Your task to perform on an android device: turn off location history Image 0: 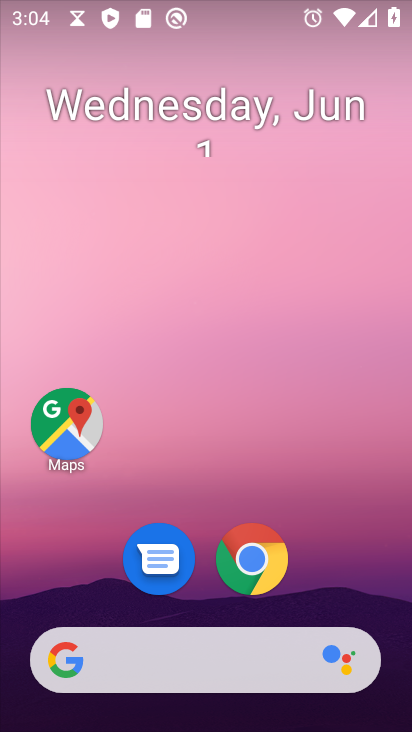
Step 0: drag from (364, 555) to (295, 30)
Your task to perform on an android device: turn off location history Image 1: 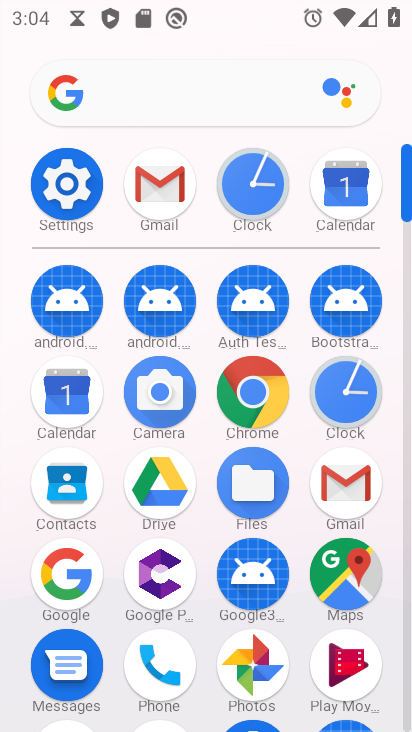
Step 1: click (70, 188)
Your task to perform on an android device: turn off location history Image 2: 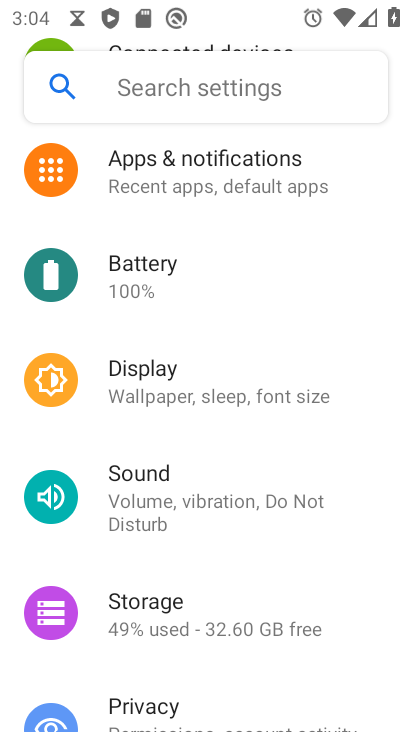
Step 2: drag from (194, 576) to (186, 173)
Your task to perform on an android device: turn off location history Image 3: 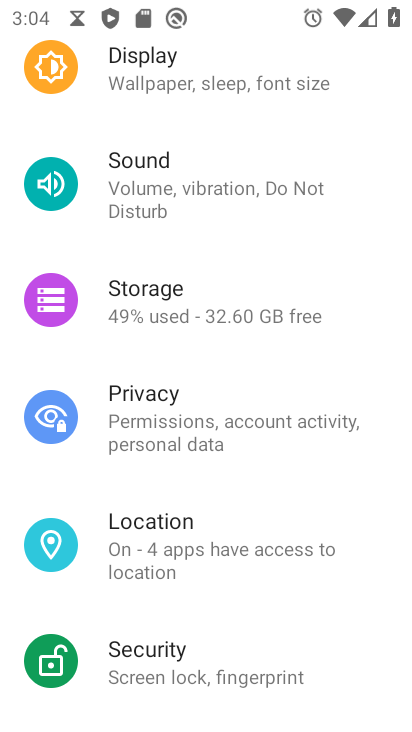
Step 3: click (160, 533)
Your task to perform on an android device: turn off location history Image 4: 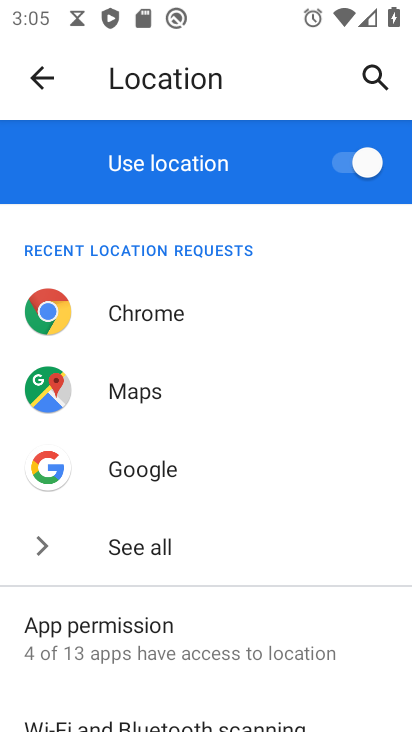
Step 4: drag from (207, 666) to (202, 205)
Your task to perform on an android device: turn off location history Image 5: 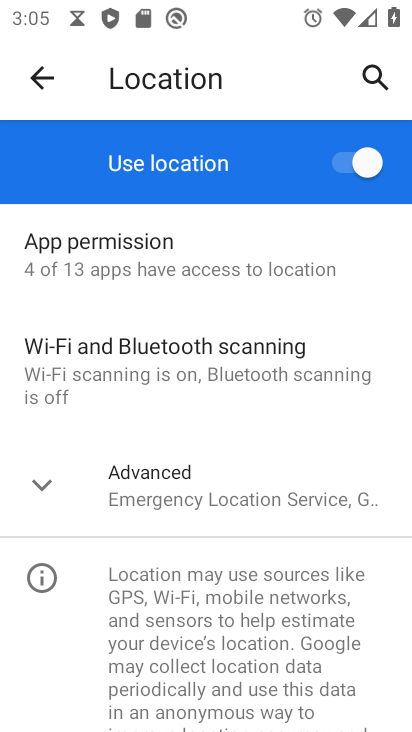
Step 5: click (184, 502)
Your task to perform on an android device: turn off location history Image 6: 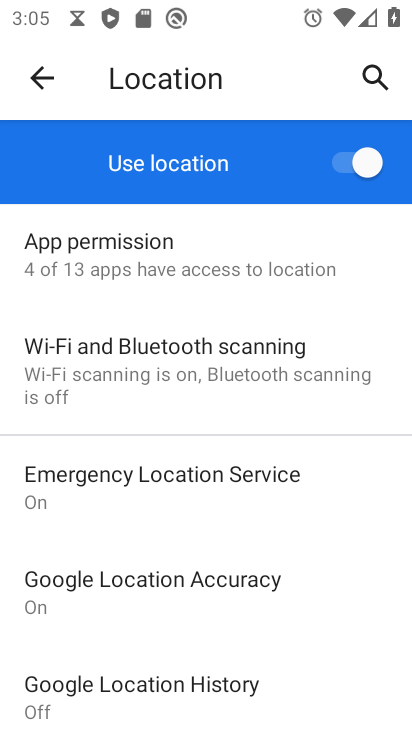
Step 6: click (212, 672)
Your task to perform on an android device: turn off location history Image 7: 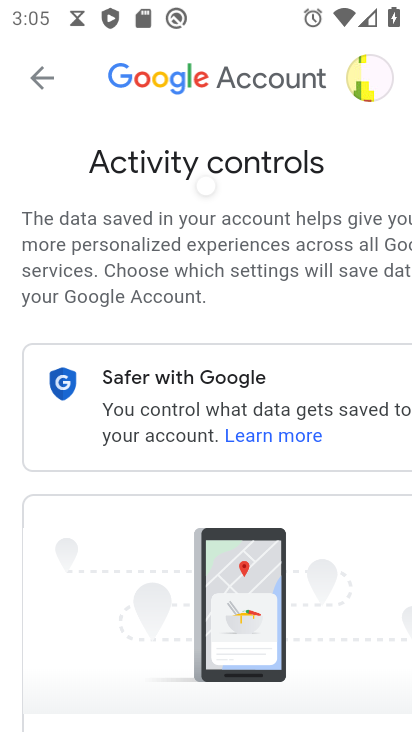
Step 7: drag from (286, 631) to (270, 125)
Your task to perform on an android device: turn off location history Image 8: 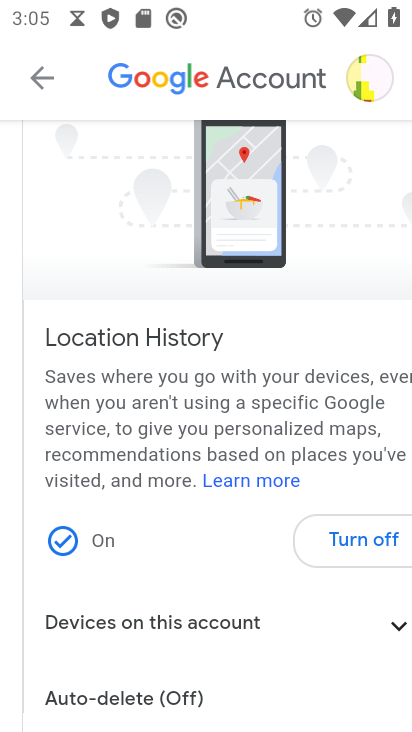
Step 8: click (353, 538)
Your task to perform on an android device: turn off location history Image 9: 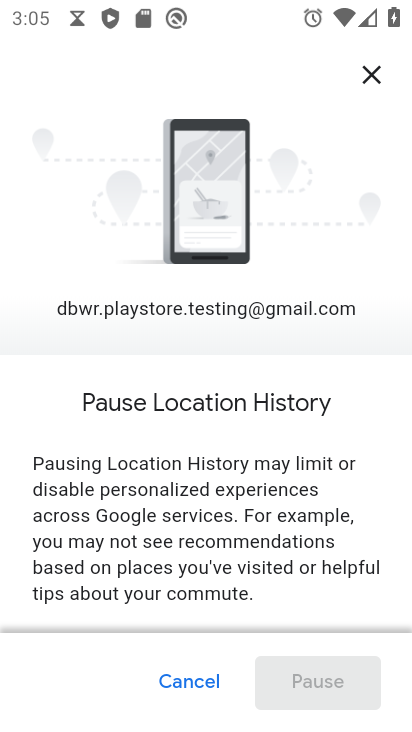
Step 9: drag from (268, 606) to (267, 100)
Your task to perform on an android device: turn off location history Image 10: 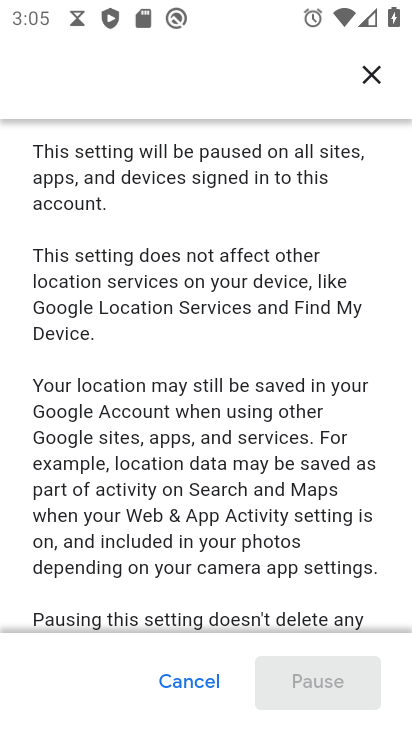
Step 10: drag from (262, 497) to (251, 10)
Your task to perform on an android device: turn off location history Image 11: 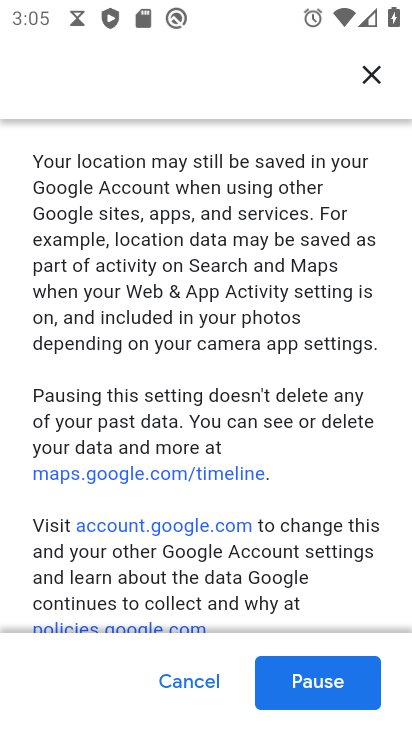
Step 11: click (317, 673)
Your task to perform on an android device: turn off location history Image 12: 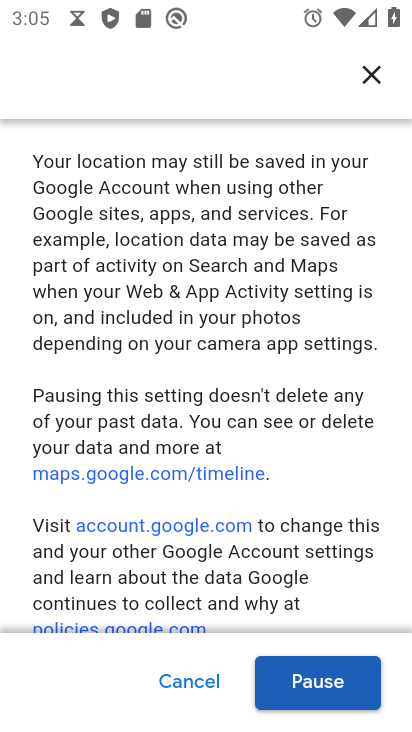
Step 12: click (345, 684)
Your task to perform on an android device: turn off location history Image 13: 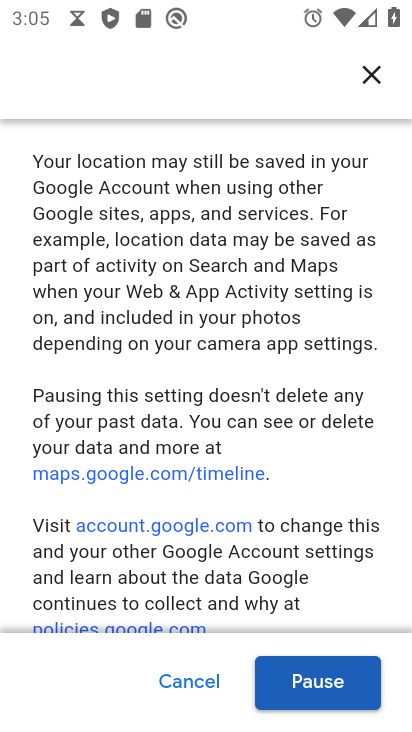
Step 13: click (345, 683)
Your task to perform on an android device: turn off location history Image 14: 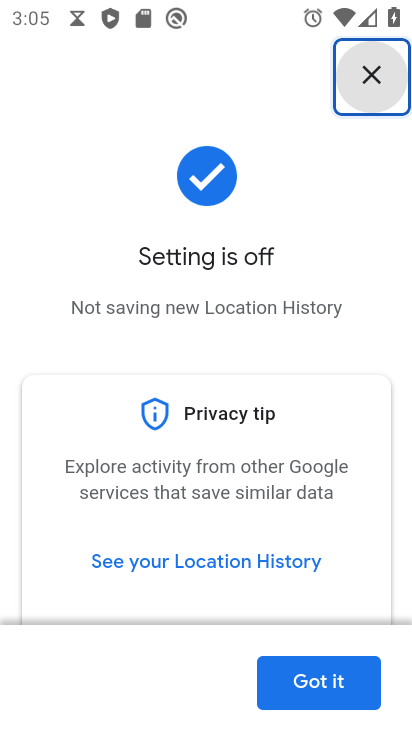
Step 14: task complete